Your task to perform on an android device: Show me the alarms in the clock app Image 0: 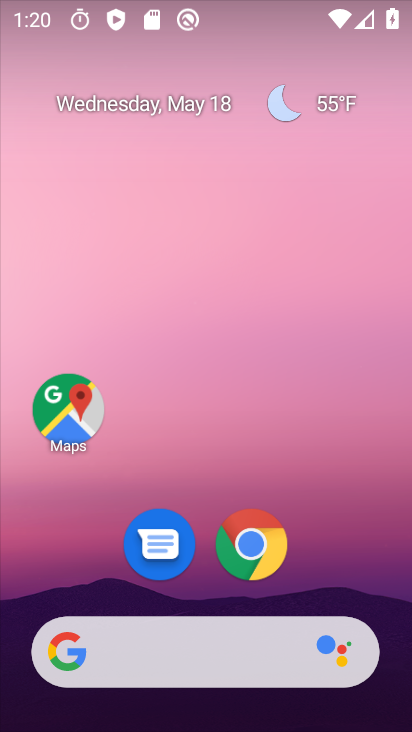
Step 0: drag from (340, 542) to (230, 172)
Your task to perform on an android device: Show me the alarms in the clock app Image 1: 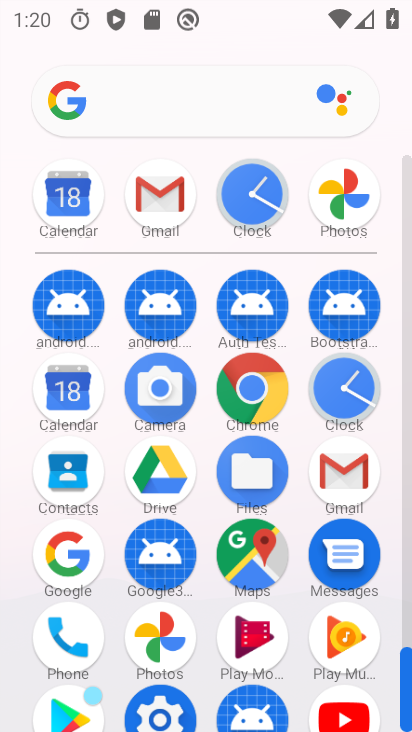
Step 1: click (265, 192)
Your task to perform on an android device: Show me the alarms in the clock app Image 2: 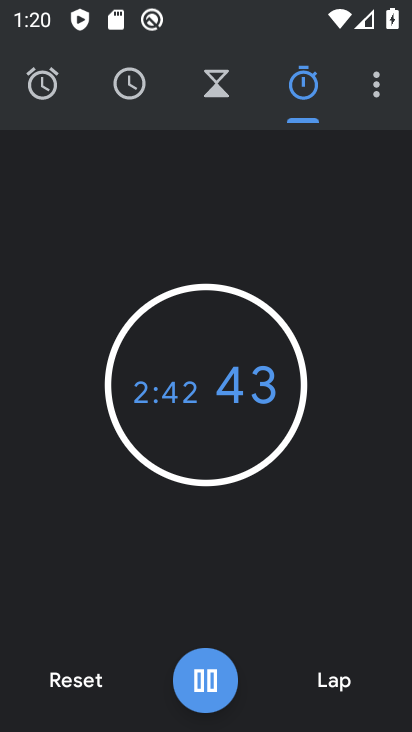
Step 2: click (43, 75)
Your task to perform on an android device: Show me the alarms in the clock app Image 3: 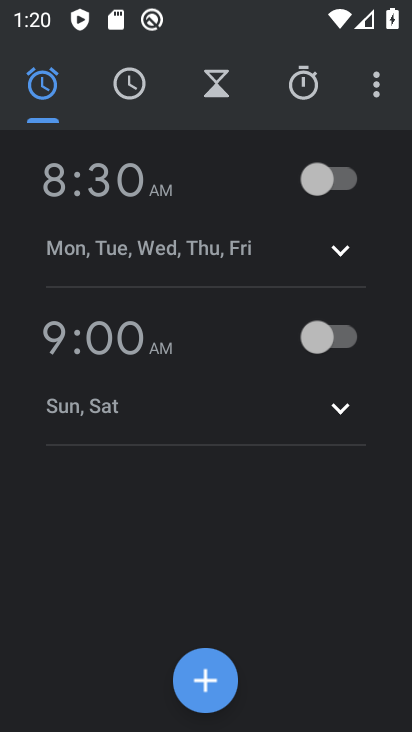
Step 3: task complete